Your task to perform on an android device: Open my contact list Image 0: 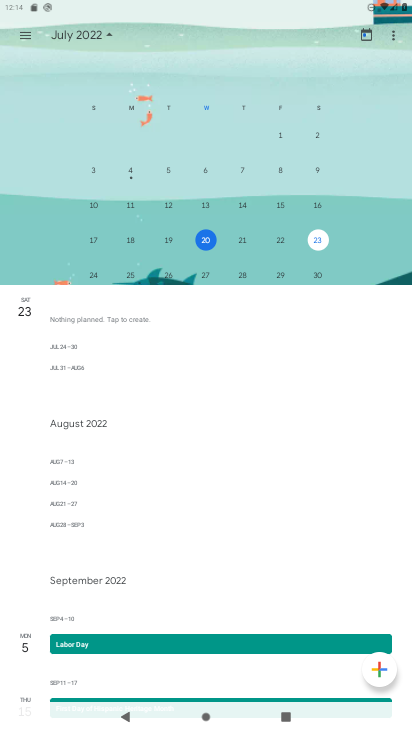
Step 0: press home button
Your task to perform on an android device: Open my contact list Image 1: 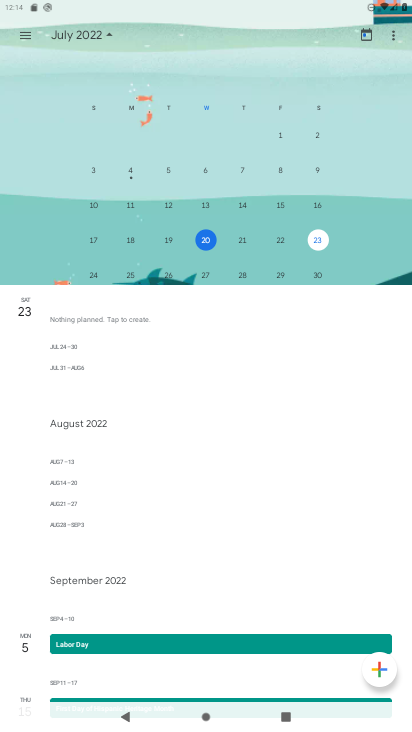
Step 1: press home button
Your task to perform on an android device: Open my contact list Image 2: 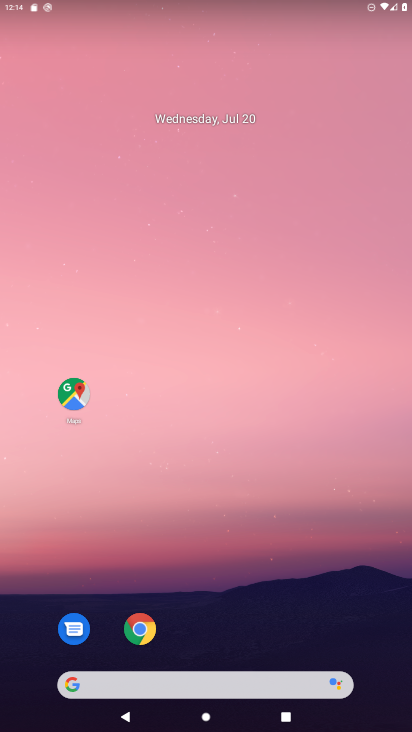
Step 2: press home button
Your task to perform on an android device: Open my contact list Image 3: 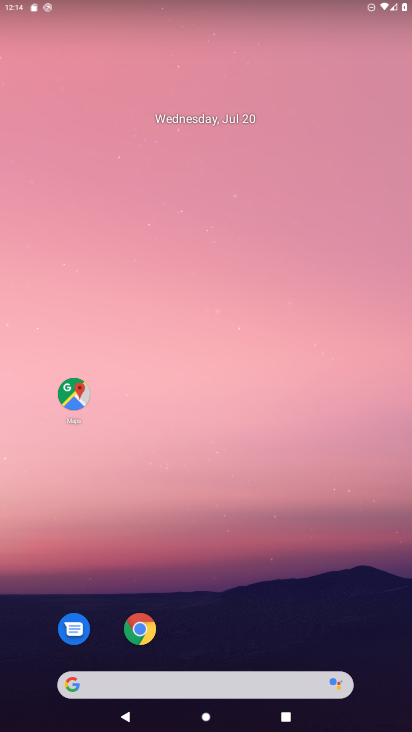
Step 3: drag from (182, 644) to (248, 171)
Your task to perform on an android device: Open my contact list Image 4: 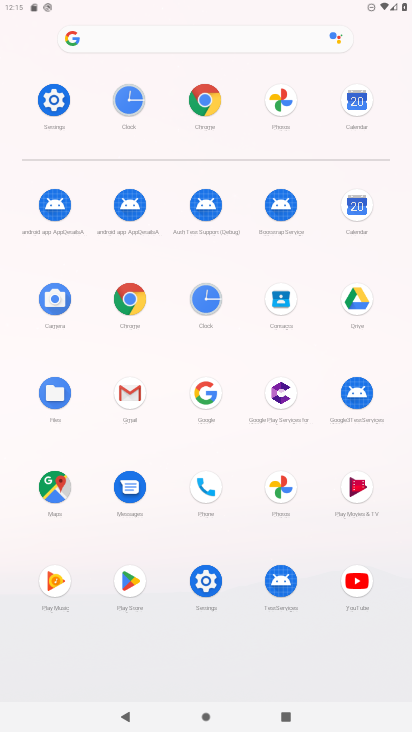
Step 4: click (285, 297)
Your task to perform on an android device: Open my contact list Image 5: 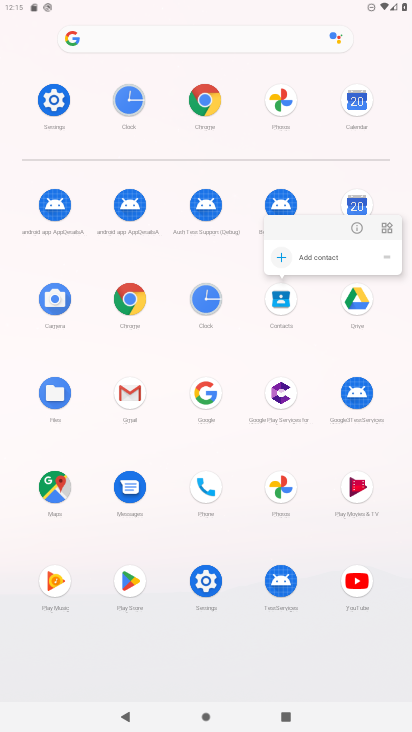
Step 5: click (356, 230)
Your task to perform on an android device: Open my contact list Image 6: 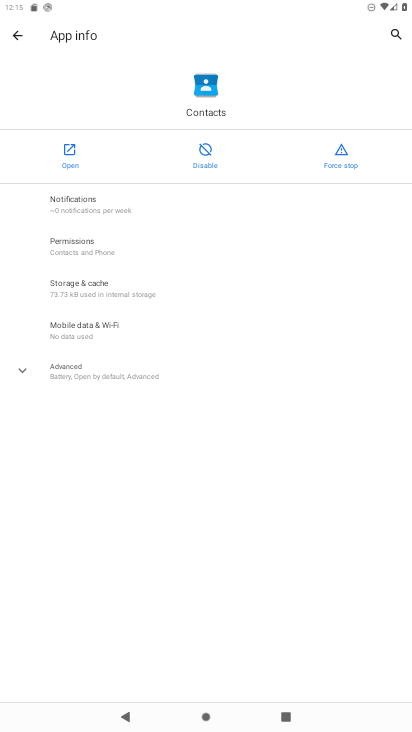
Step 6: click (67, 159)
Your task to perform on an android device: Open my contact list Image 7: 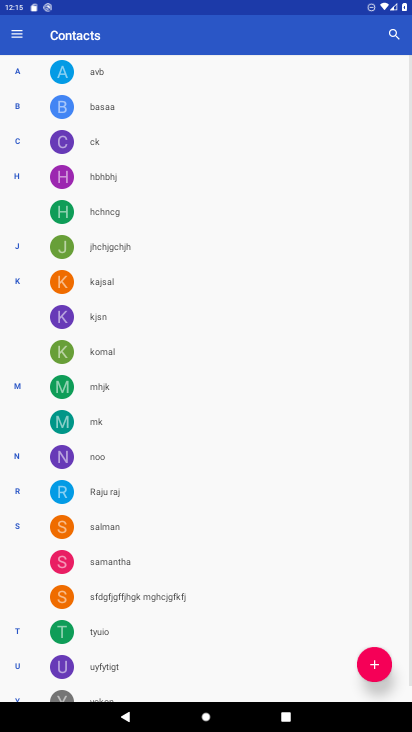
Step 7: task complete